Your task to perform on an android device: Go to ESPN.com Image 0: 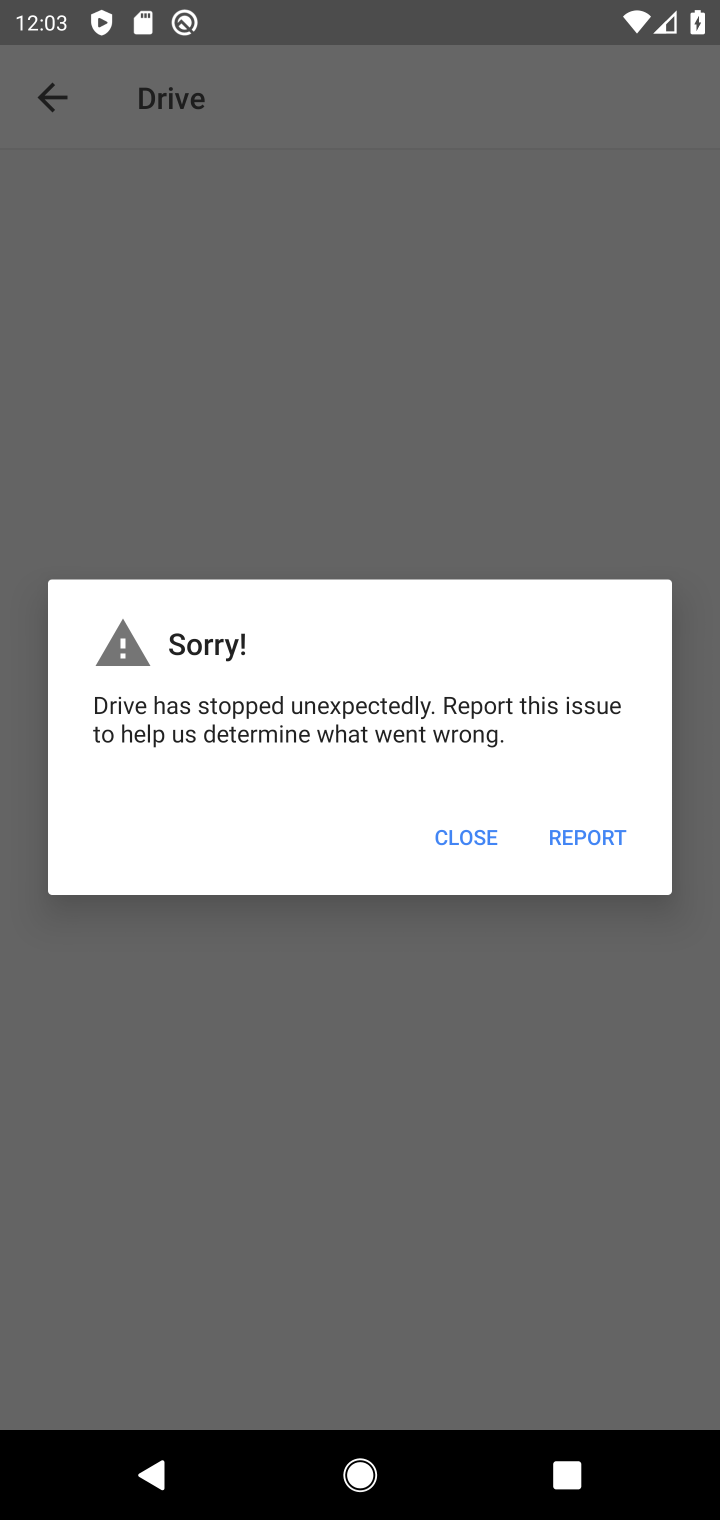
Step 0: press home button
Your task to perform on an android device: Go to ESPN.com Image 1: 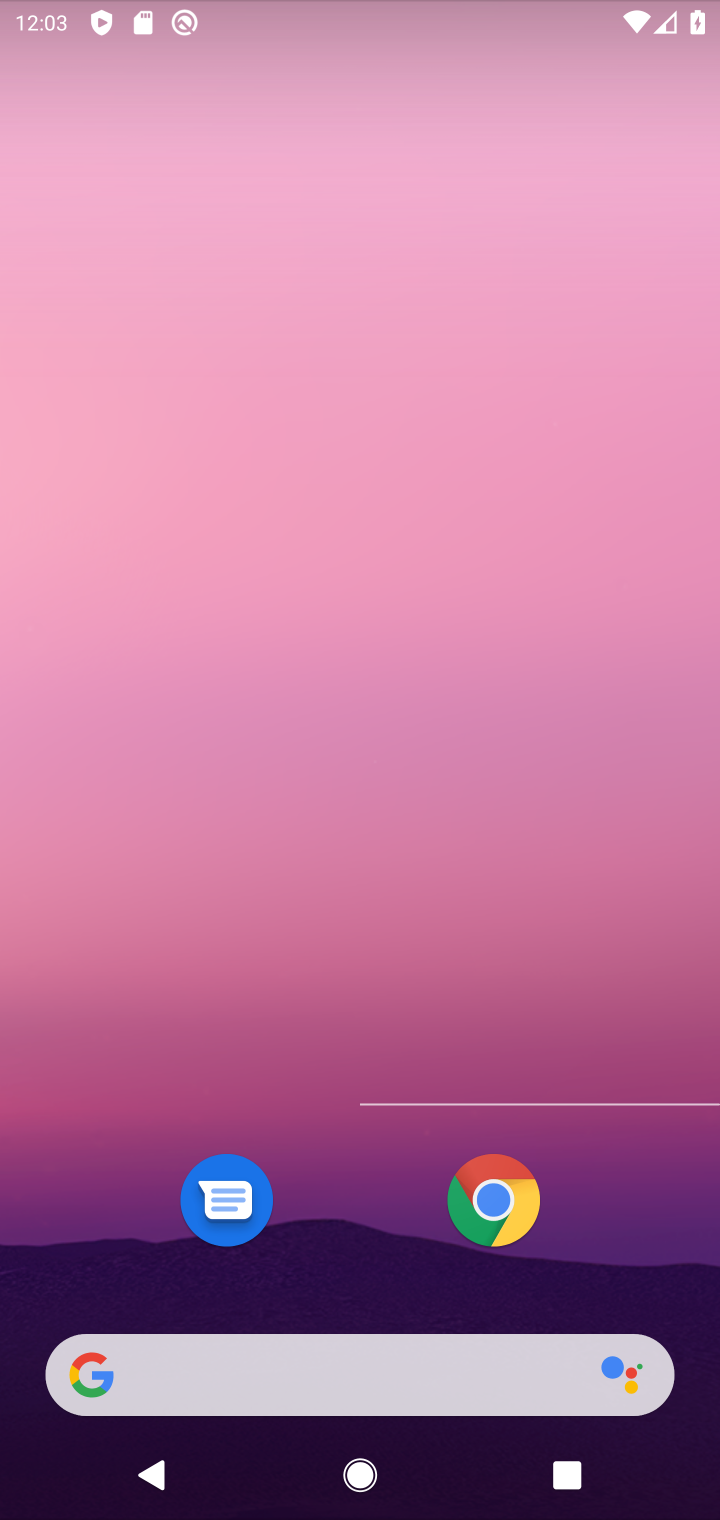
Step 1: click (498, 1173)
Your task to perform on an android device: Go to ESPN.com Image 2: 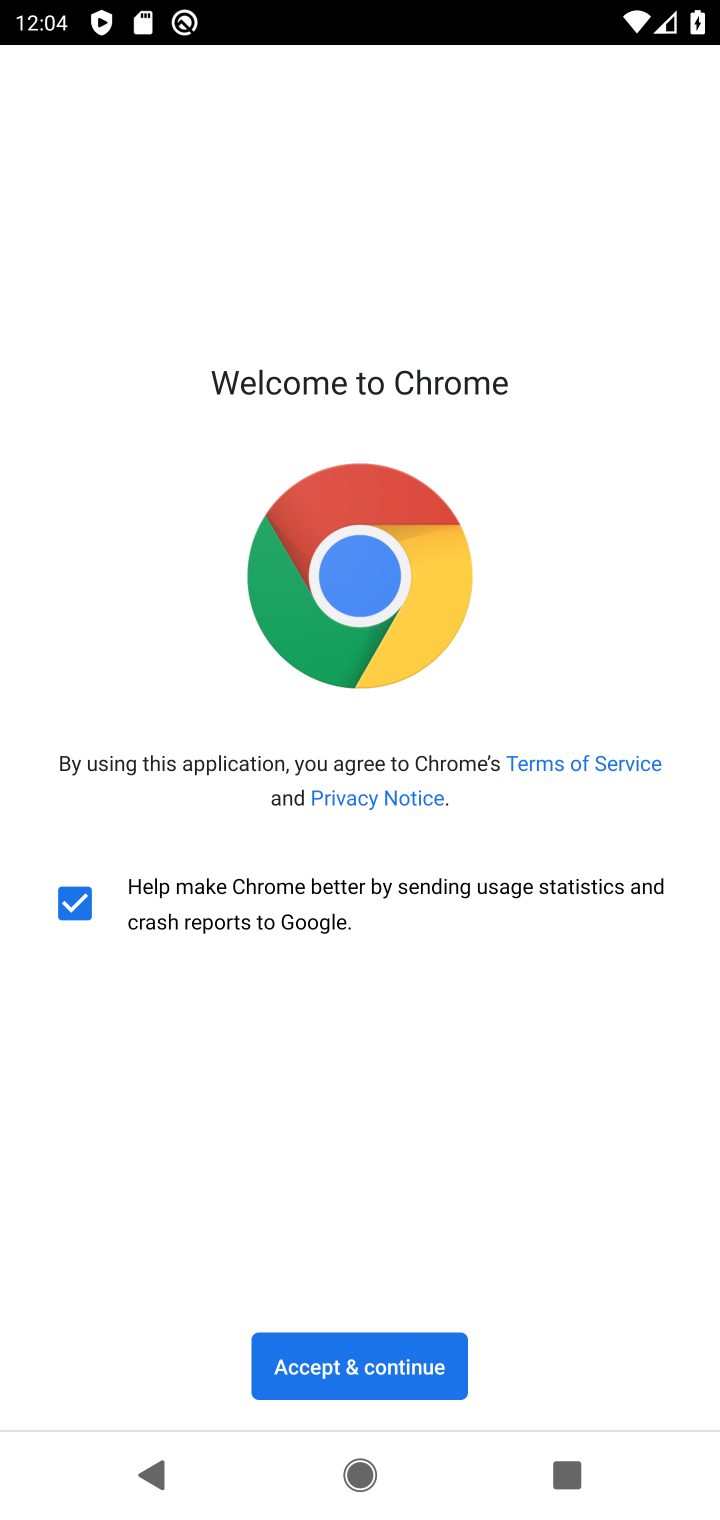
Step 2: click (397, 1337)
Your task to perform on an android device: Go to ESPN.com Image 3: 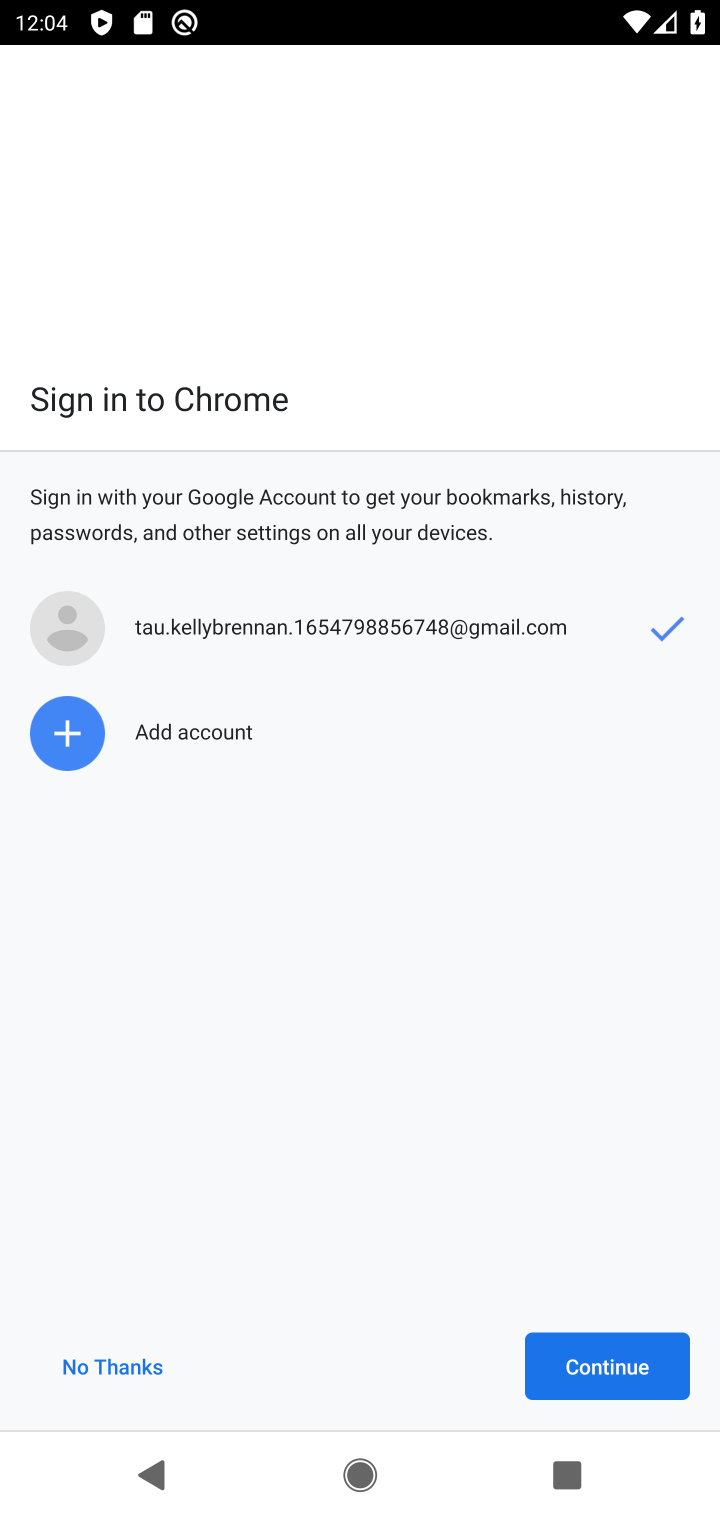
Step 3: click (613, 1373)
Your task to perform on an android device: Go to ESPN.com Image 4: 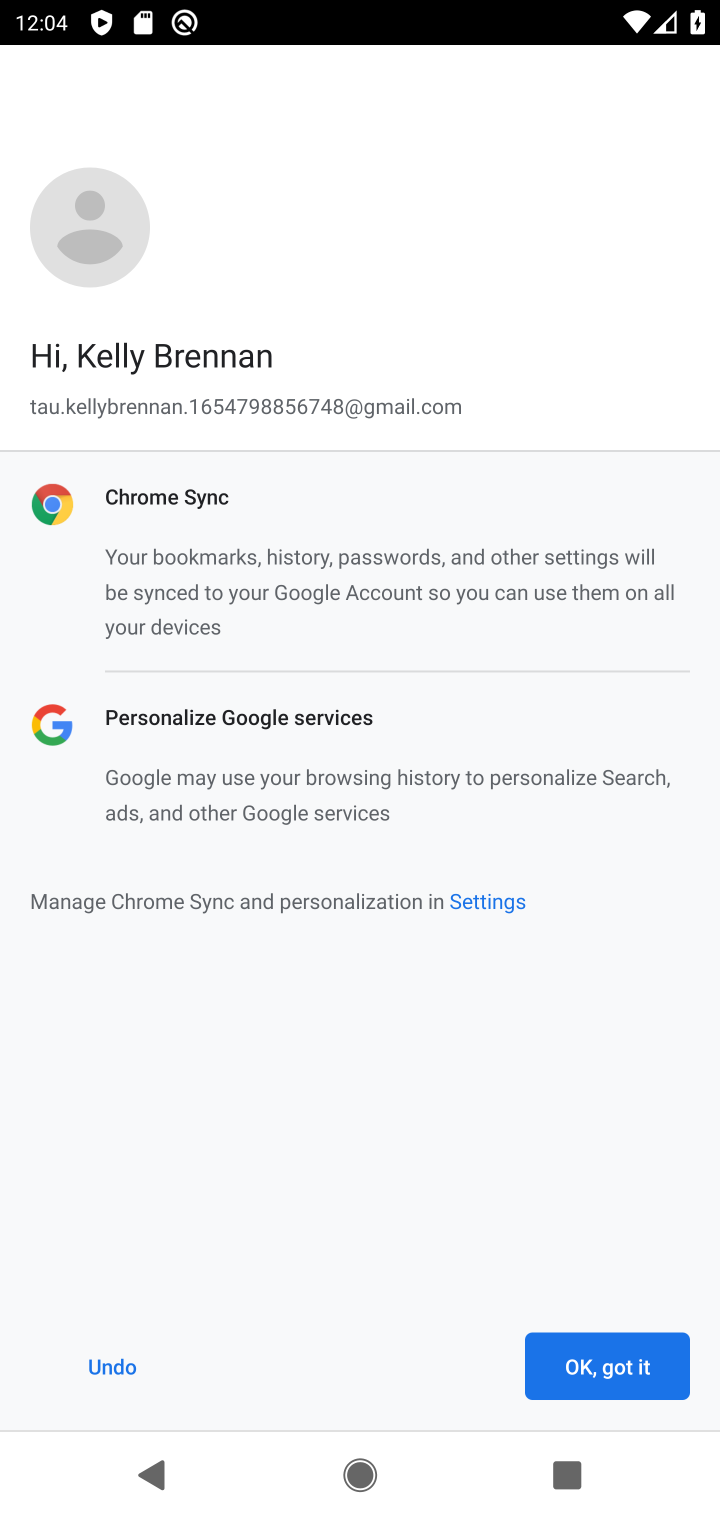
Step 4: click (613, 1373)
Your task to perform on an android device: Go to ESPN.com Image 5: 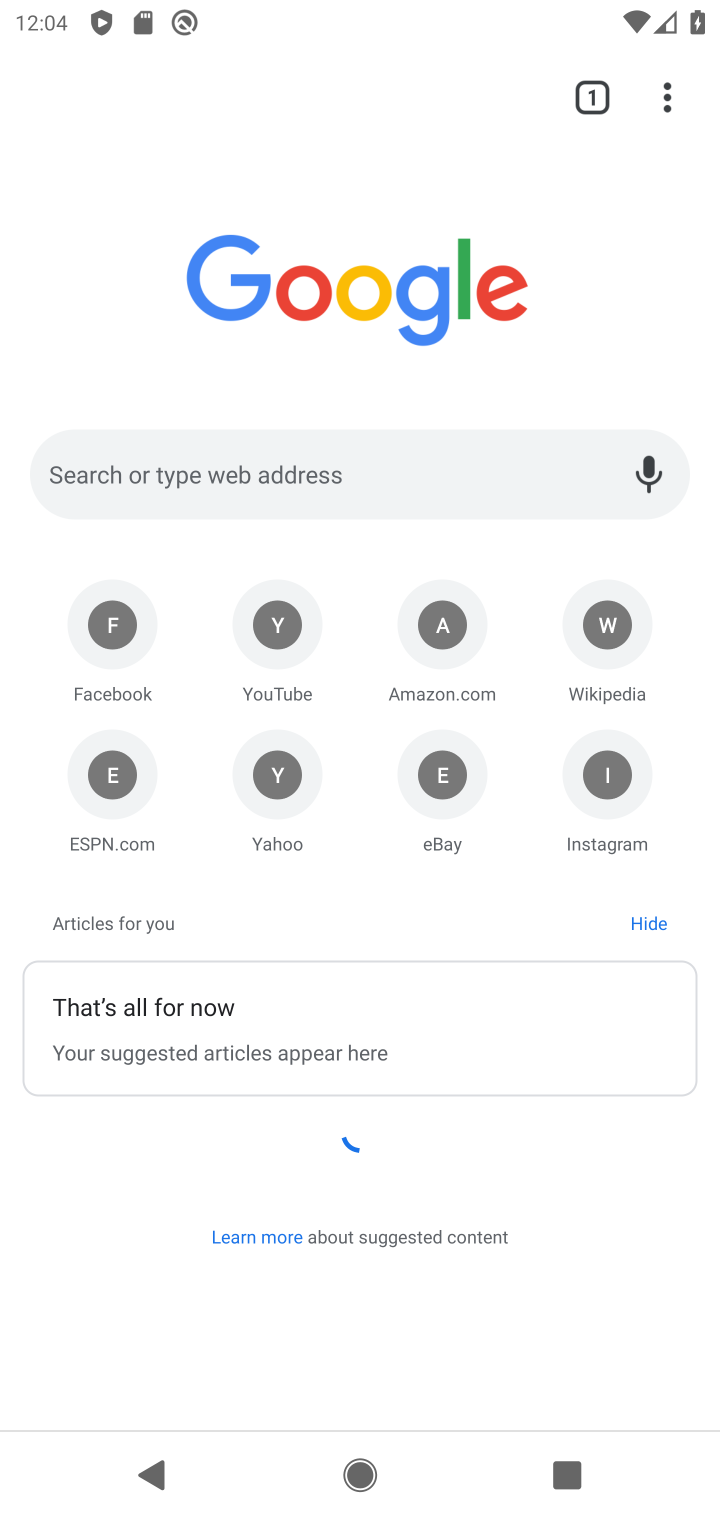
Step 5: click (169, 455)
Your task to perform on an android device: Go to ESPN.com Image 6: 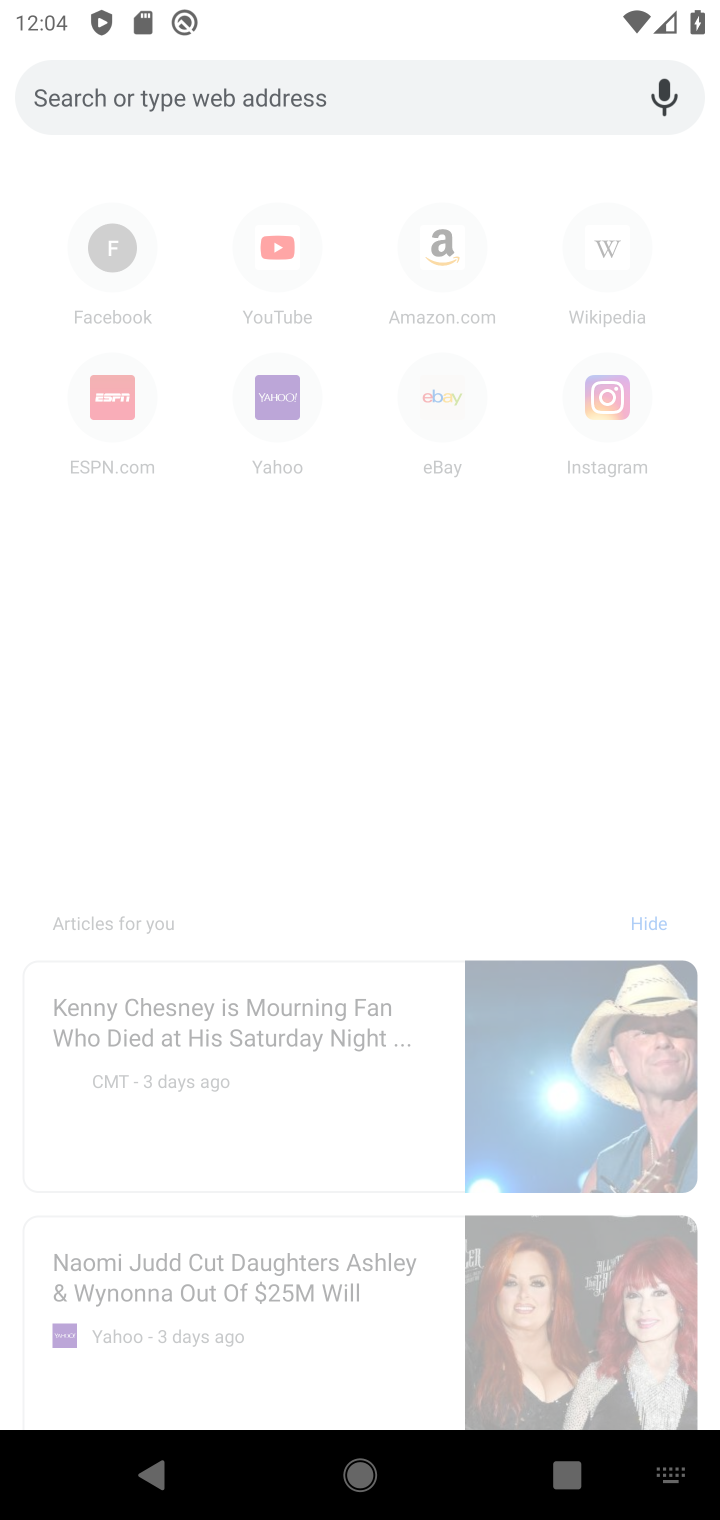
Step 6: type "ESPN.com"
Your task to perform on an android device: Go to ESPN.com Image 7: 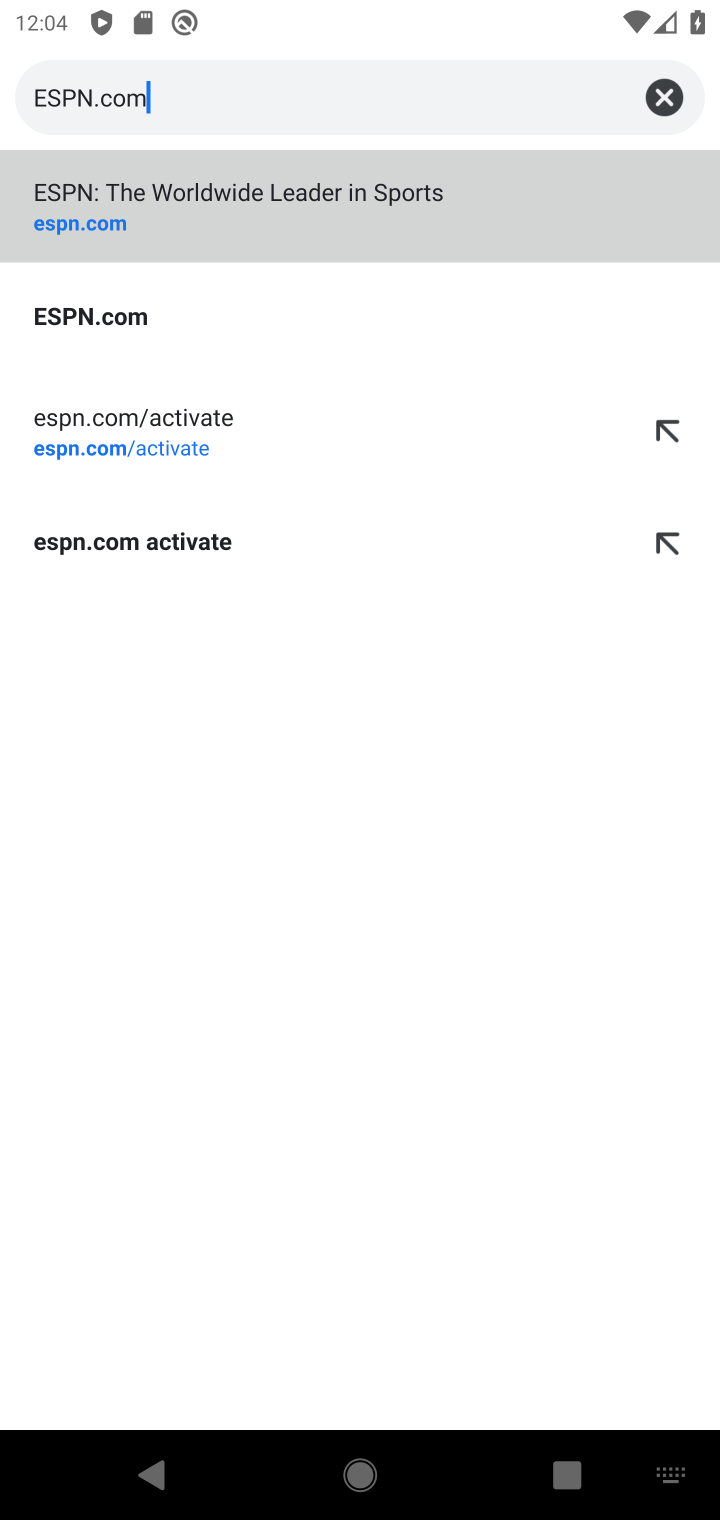
Step 7: click (89, 222)
Your task to perform on an android device: Go to ESPN.com Image 8: 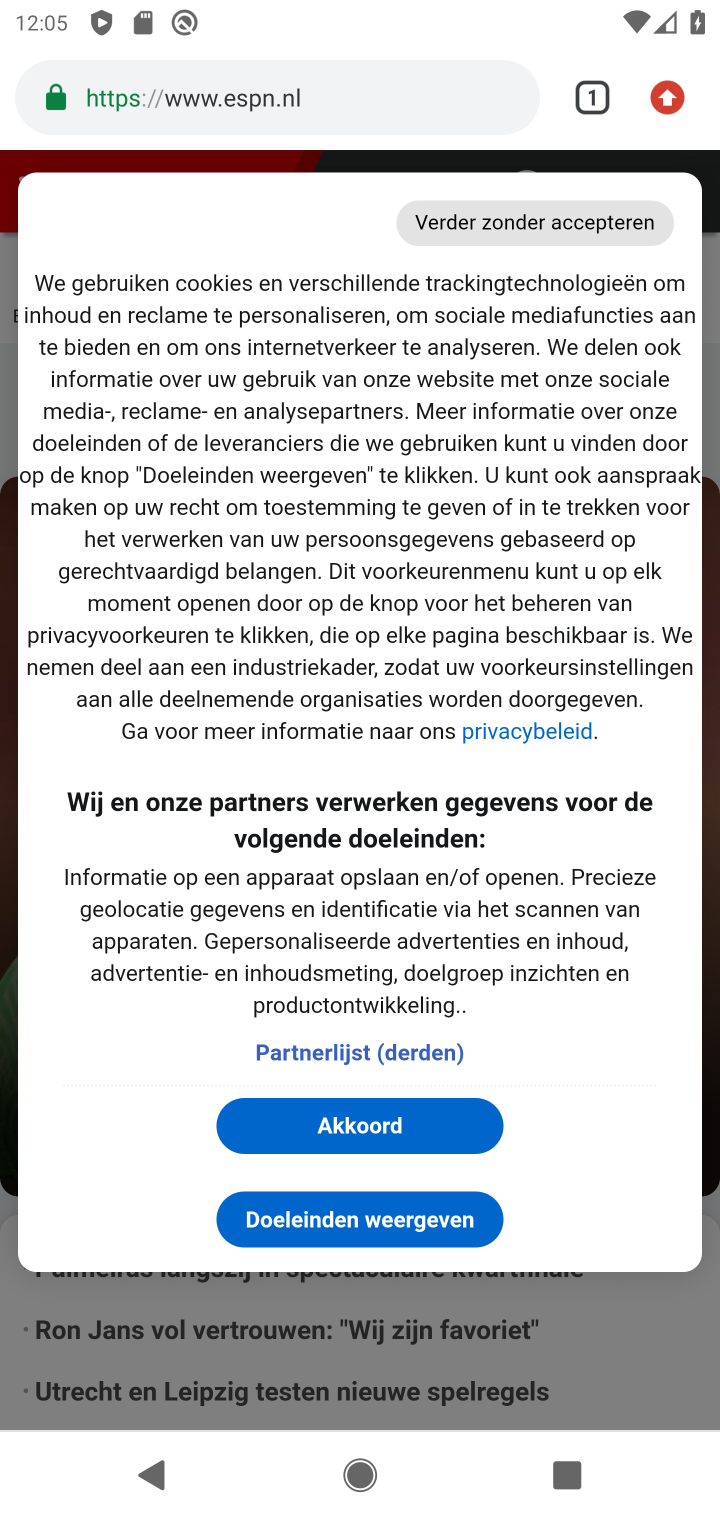
Step 8: click (321, 1131)
Your task to perform on an android device: Go to ESPN.com Image 9: 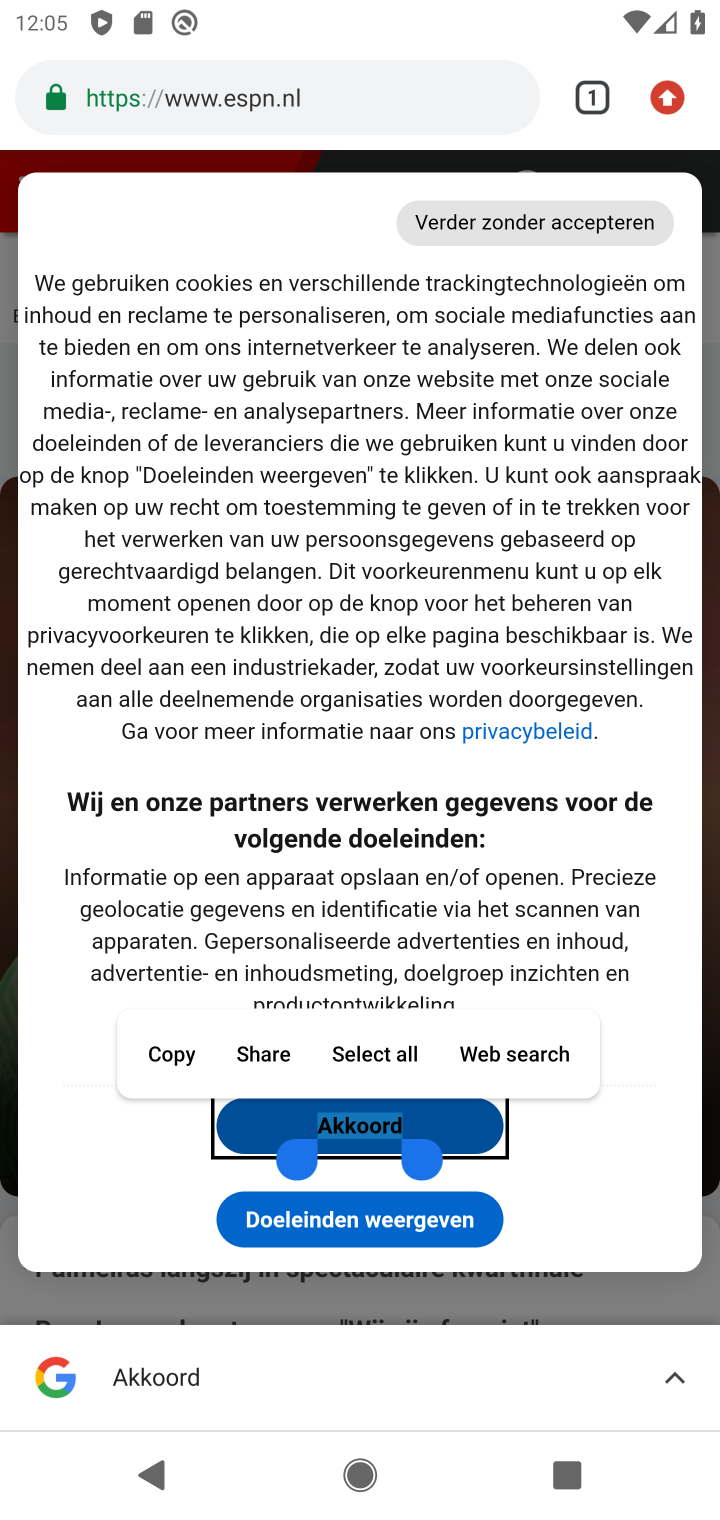
Step 9: task complete